Your task to perform on an android device: manage bookmarks in the chrome app Image 0: 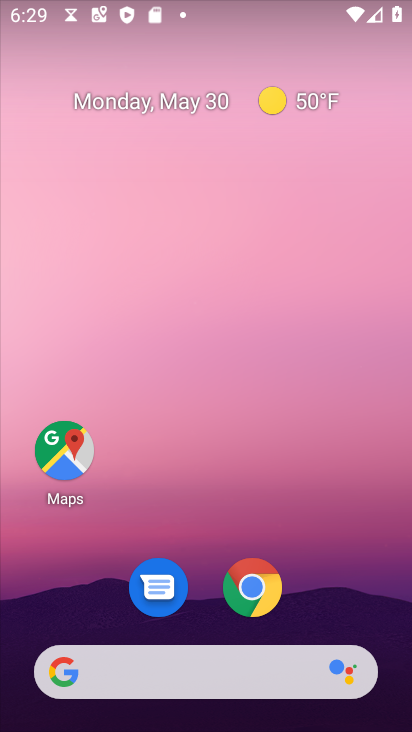
Step 0: drag from (301, 452) to (194, 8)
Your task to perform on an android device: manage bookmarks in the chrome app Image 1: 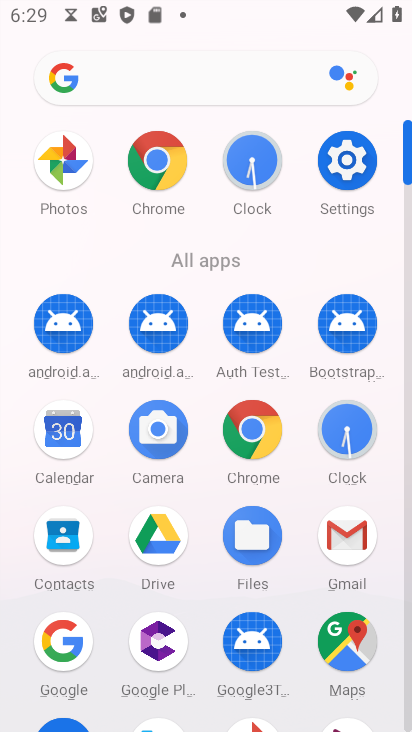
Step 1: drag from (14, 541) to (25, 238)
Your task to perform on an android device: manage bookmarks in the chrome app Image 2: 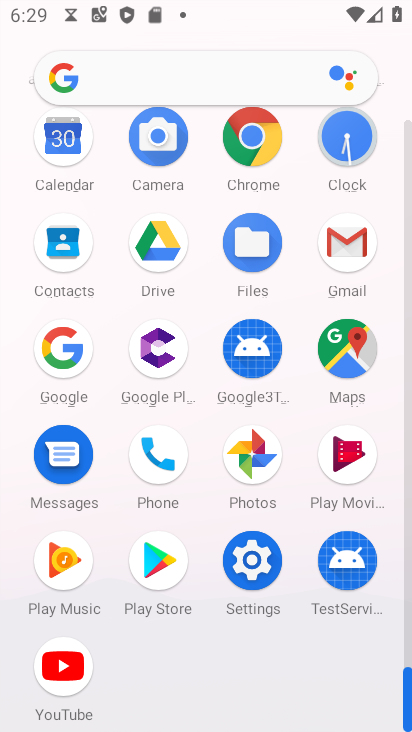
Step 2: click (255, 130)
Your task to perform on an android device: manage bookmarks in the chrome app Image 3: 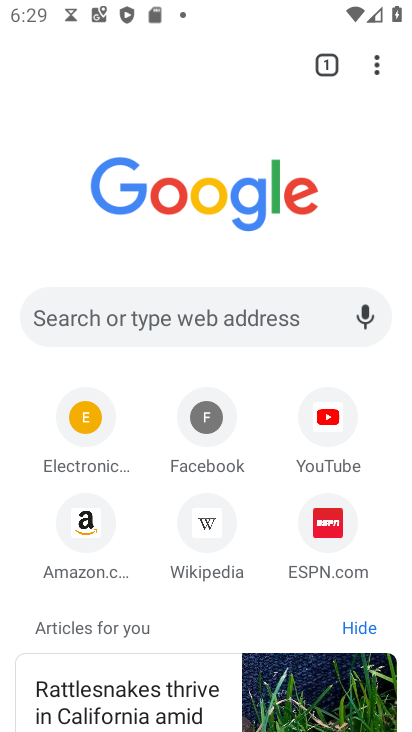
Step 3: task complete